Your task to perform on an android device: change the clock style Image 0: 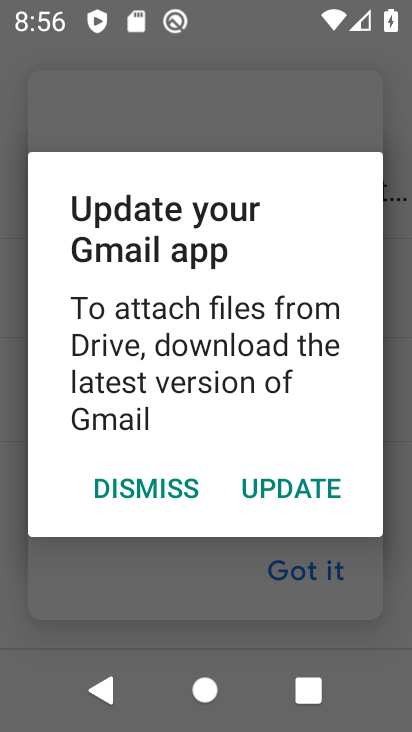
Step 0: press home button
Your task to perform on an android device: change the clock style Image 1: 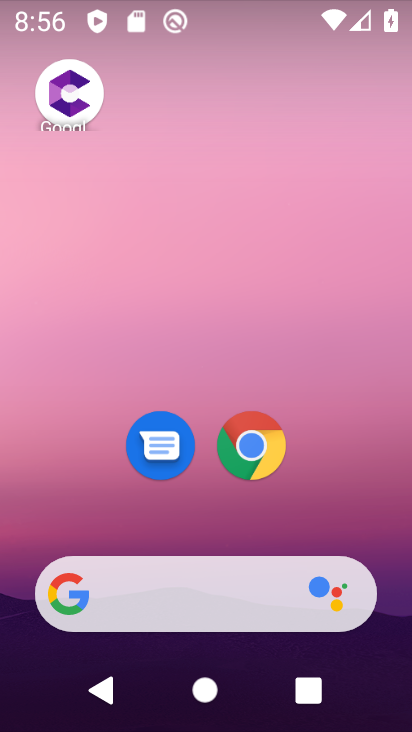
Step 1: drag from (376, 535) to (325, 152)
Your task to perform on an android device: change the clock style Image 2: 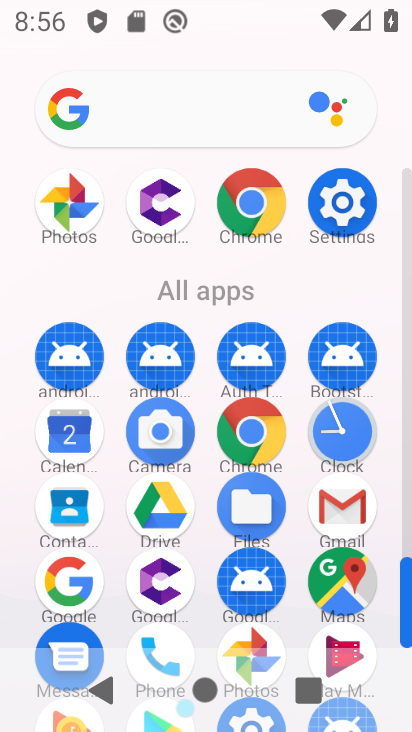
Step 2: click (363, 431)
Your task to perform on an android device: change the clock style Image 3: 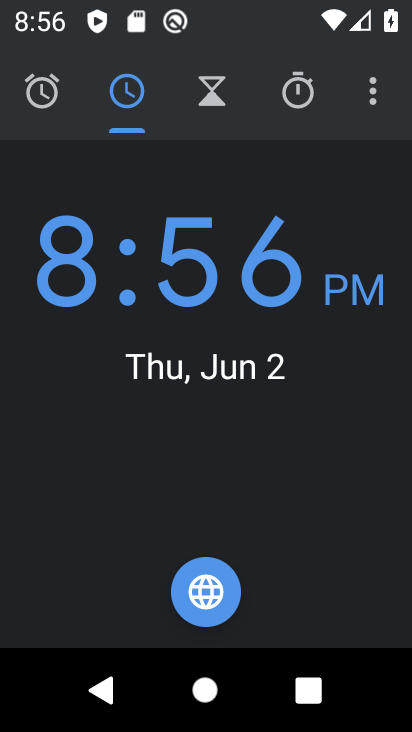
Step 3: click (380, 83)
Your task to perform on an android device: change the clock style Image 4: 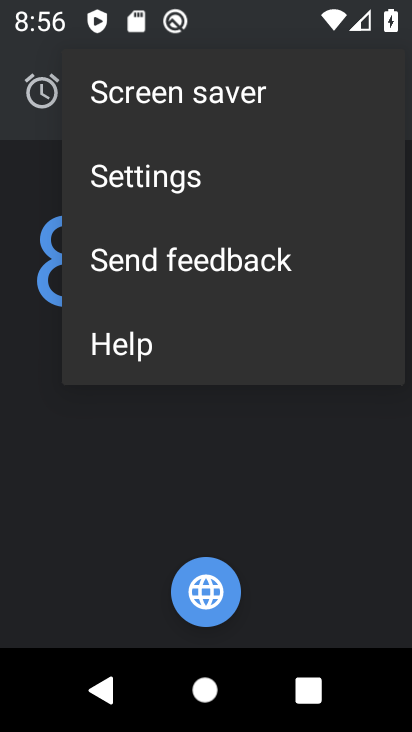
Step 4: click (210, 182)
Your task to perform on an android device: change the clock style Image 5: 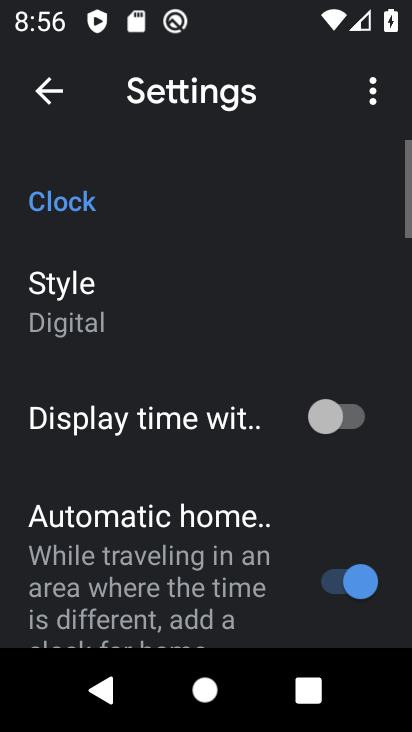
Step 5: click (134, 308)
Your task to perform on an android device: change the clock style Image 6: 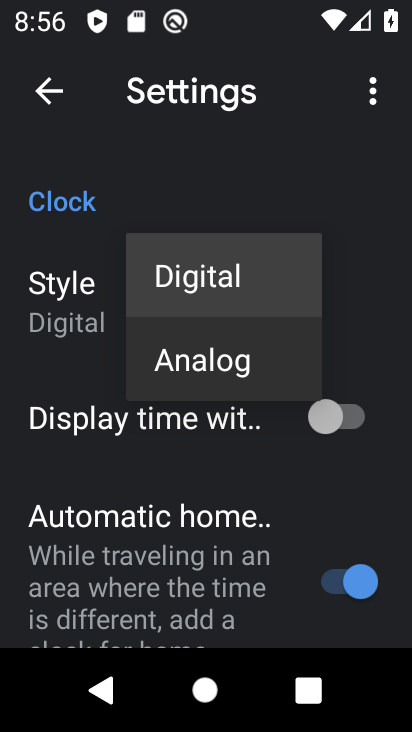
Step 6: click (190, 370)
Your task to perform on an android device: change the clock style Image 7: 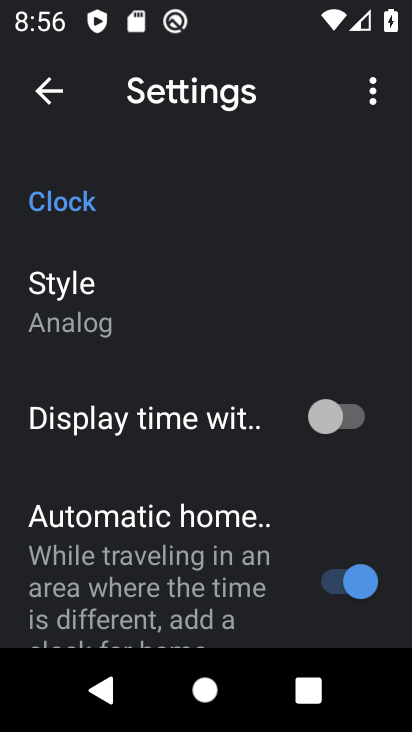
Step 7: task complete